Your task to perform on an android device: turn notification dots off Image 0: 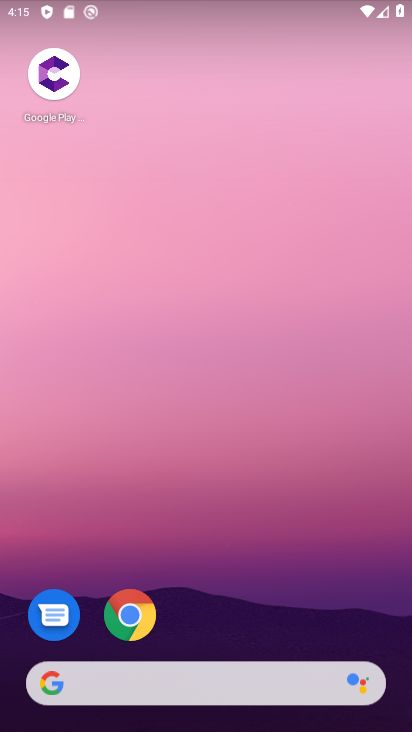
Step 0: drag from (212, 581) to (280, 67)
Your task to perform on an android device: turn notification dots off Image 1: 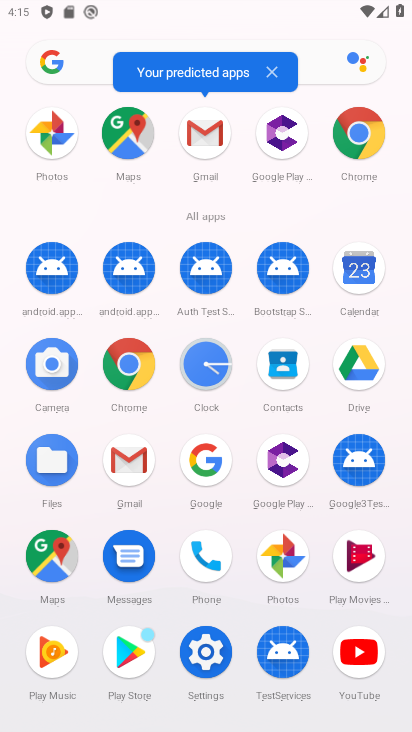
Step 1: click (221, 662)
Your task to perform on an android device: turn notification dots off Image 2: 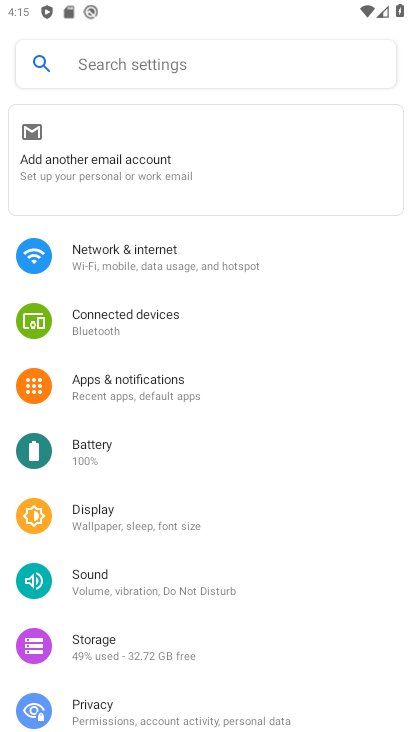
Step 2: click (181, 407)
Your task to perform on an android device: turn notification dots off Image 3: 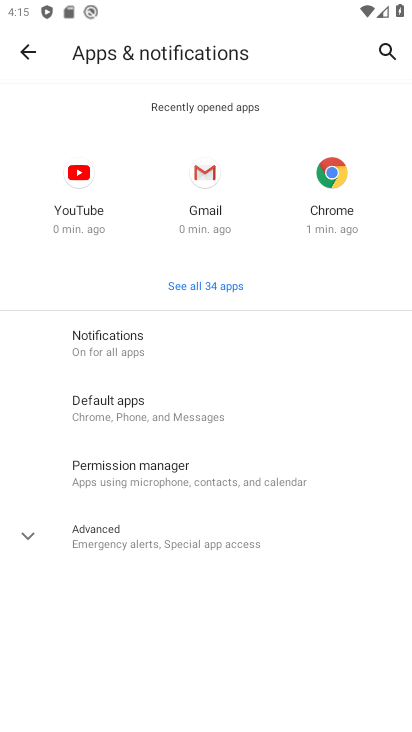
Step 3: click (130, 334)
Your task to perform on an android device: turn notification dots off Image 4: 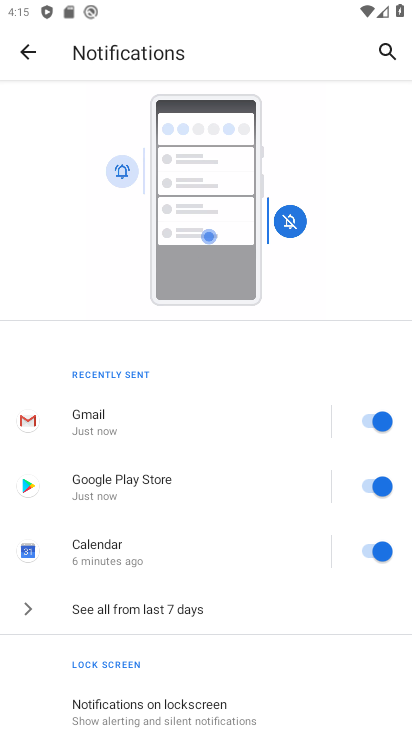
Step 4: drag from (175, 674) to (214, 191)
Your task to perform on an android device: turn notification dots off Image 5: 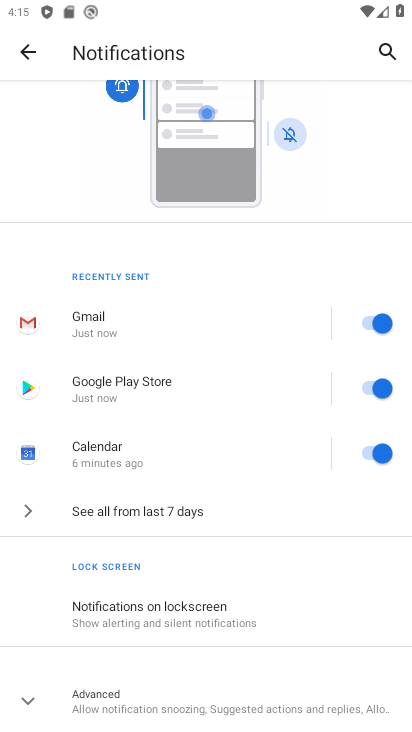
Step 5: click (136, 710)
Your task to perform on an android device: turn notification dots off Image 6: 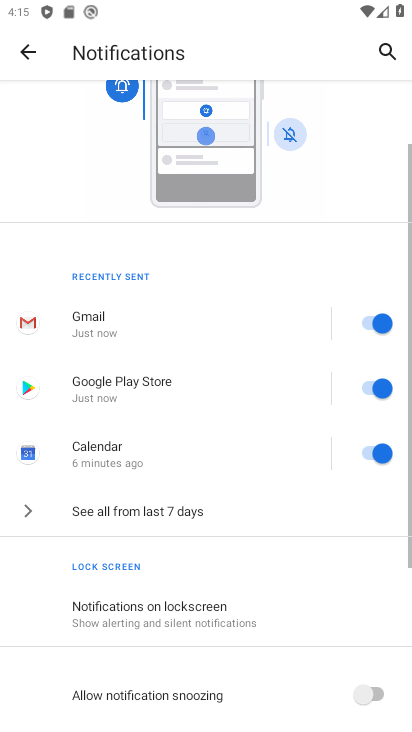
Step 6: drag from (166, 653) to (241, 172)
Your task to perform on an android device: turn notification dots off Image 7: 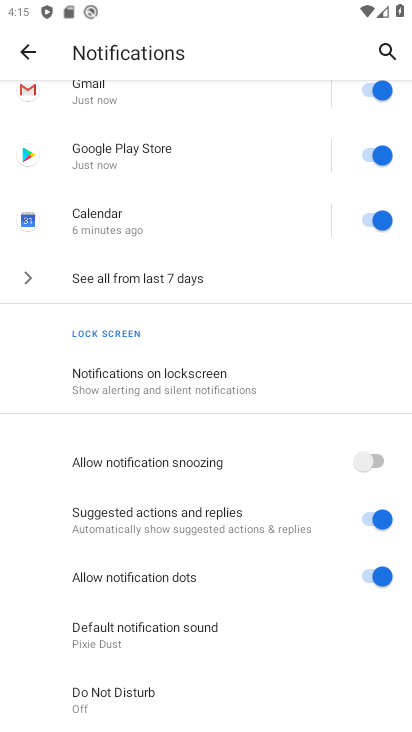
Step 7: click (373, 574)
Your task to perform on an android device: turn notification dots off Image 8: 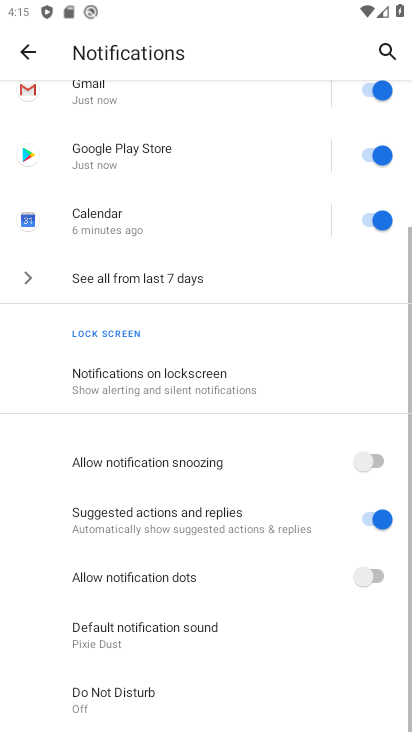
Step 8: task complete